Your task to perform on an android device: open the mobile data screen to see how much data has been used Image 0: 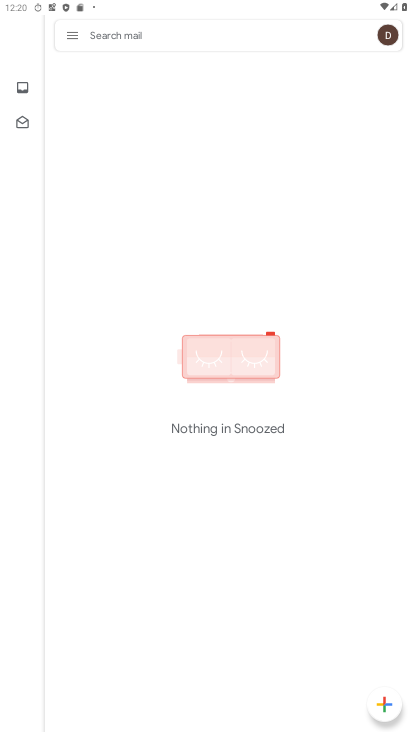
Step 0: press home button
Your task to perform on an android device: open the mobile data screen to see how much data has been used Image 1: 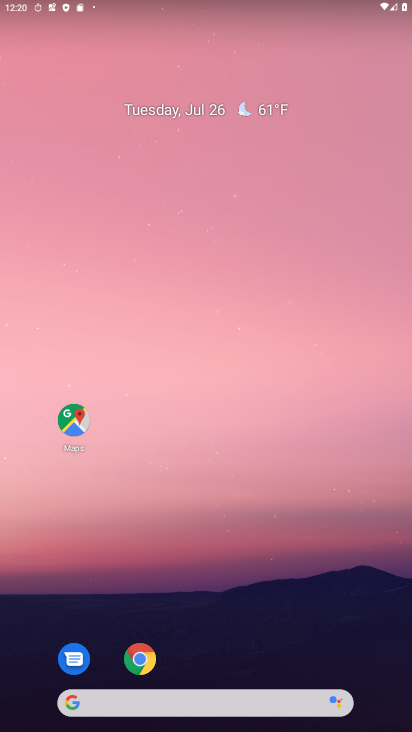
Step 1: drag from (56, 643) to (337, 47)
Your task to perform on an android device: open the mobile data screen to see how much data has been used Image 2: 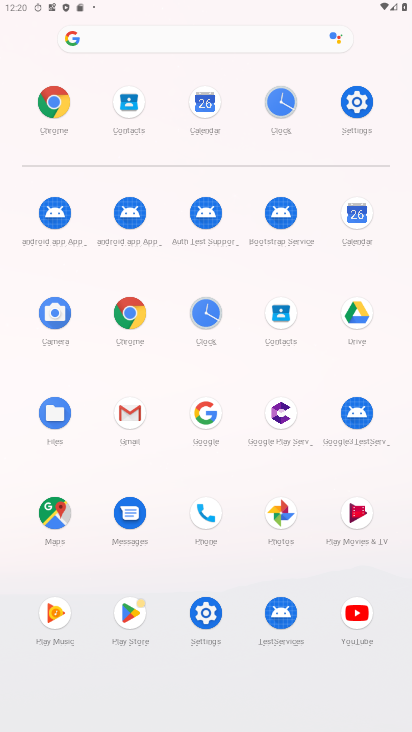
Step 2: click (217, 615)
Your task to perform on an android device: open the mobile data screen to see how much data has been used Image 3: 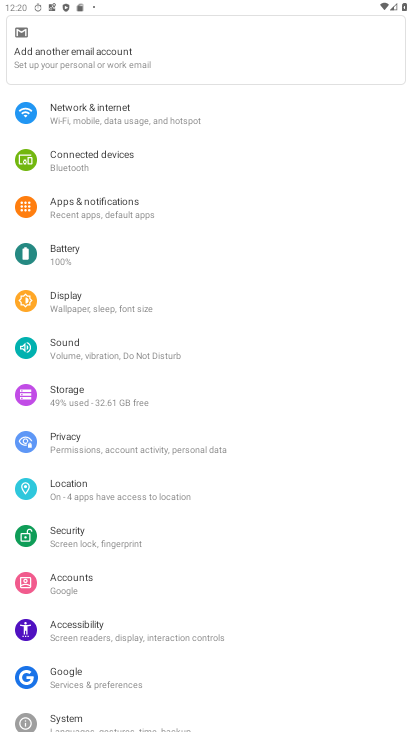
Step 3: click (123, 118)
Your task to perform on an android device: open the mobile data screen to see how much data has been used Image 4: 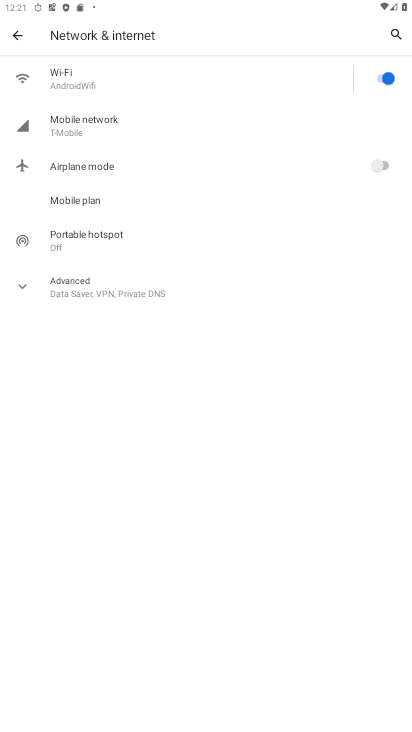
Step 4: click (107, 130)
Your task to perform on an android device: open the mobile data screen to see how much data has been used Image 5: 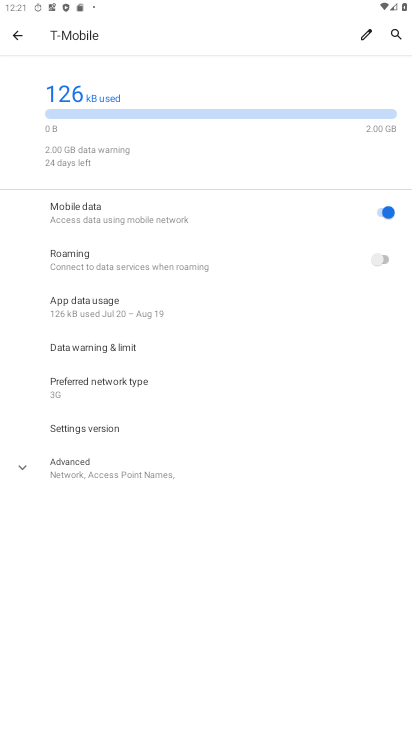
Step 5: task complete